Your task to perform on an android device: toggle data saver in the chrome app Image 0: 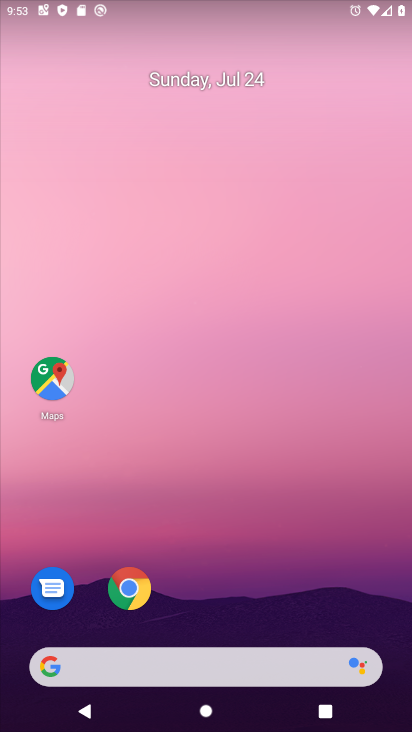
Step 0: drag from (311, 610) to (305, 109)
Your task to perform on an android device: toggle data saver in the chrome app Image 1: 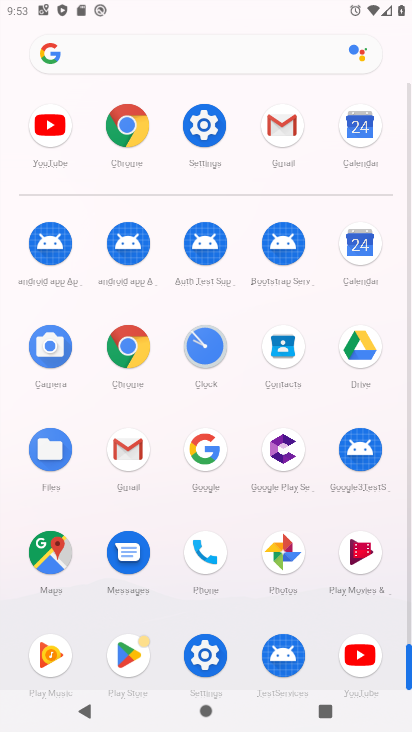
Step 1: drag from (237, 630) to (298, 3)
Your task to perform on an android device: toggle data saver in the chrome app Image 2: 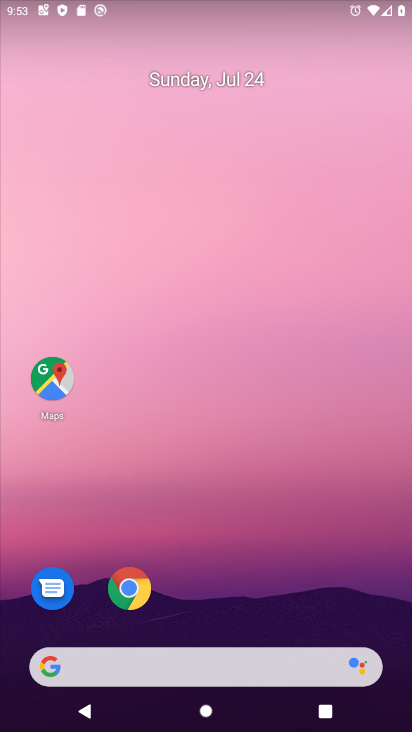
Step 2: click (126, 120)
Your task to perform on an android device: toggle data saver in the chrome app Image 3: 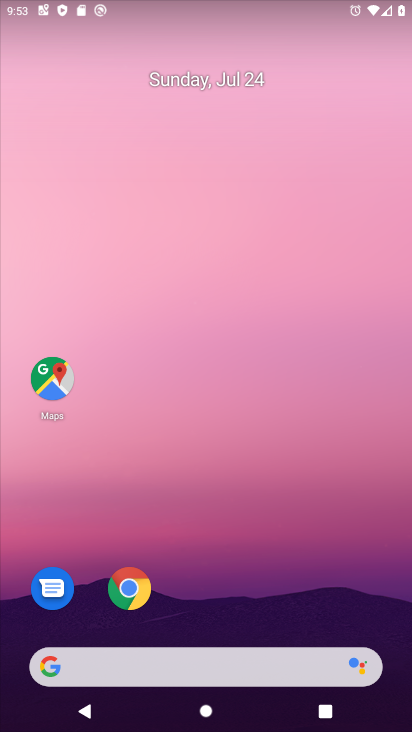
Step 3: click (111, 120)
Your task to perform on an android device: toggle data saver in the chrome app Image 4: 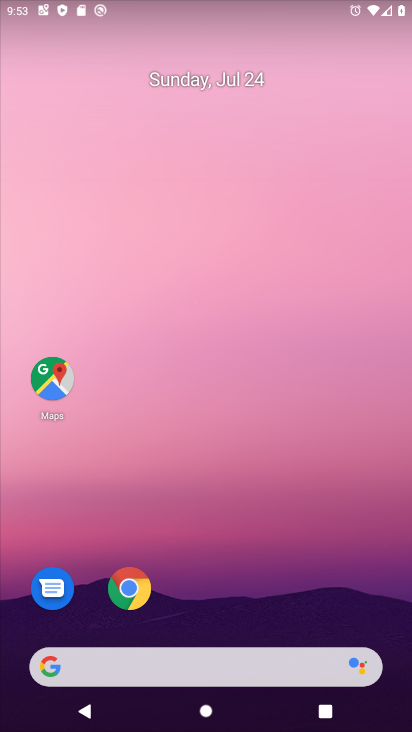
Step 4: drag from (215, 538) to (207, 6)
Your task to perform on an android device: toggle data saver in the chrome app Image 5: 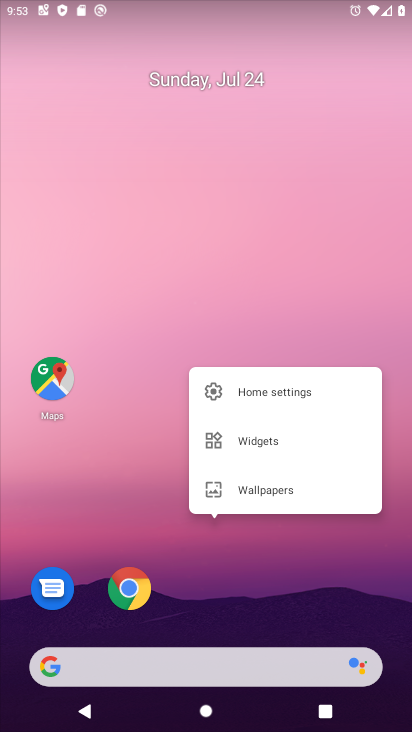
Step 5: drag from (189, 376) to (188, 34)
Your task to perform on an android device: toggle data saver in the chrome app Image 6: 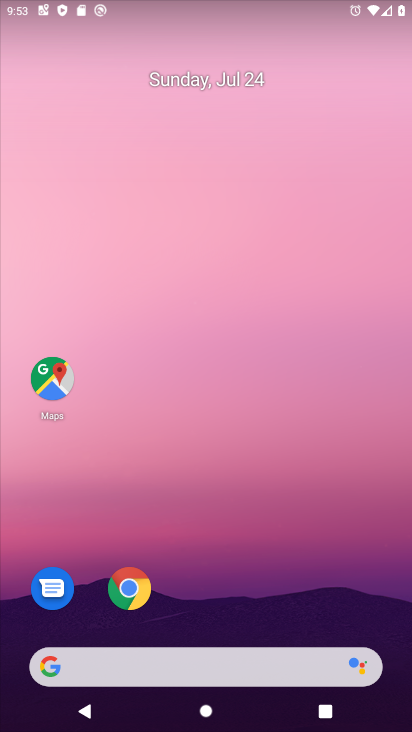
Step 6: drag from (158, 76) to (191, 23)
Your task to perform on an android device: toggle data saver in the chrome app Image 7: 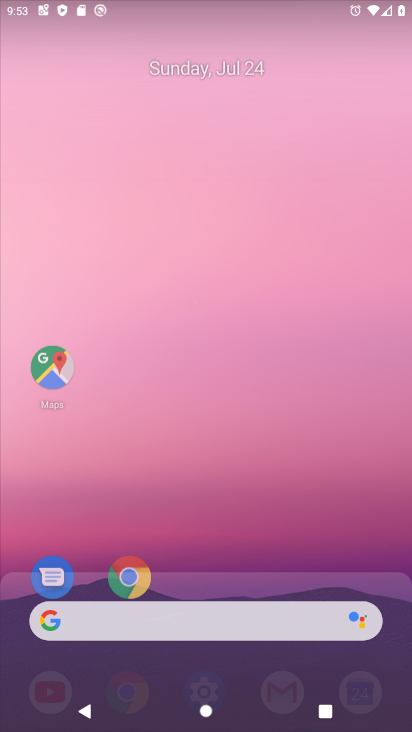
Step 7: drag from (225, 445) to (234, 47)
Your task to perform on an android device: toggle data saver in the chrome app Image 8: 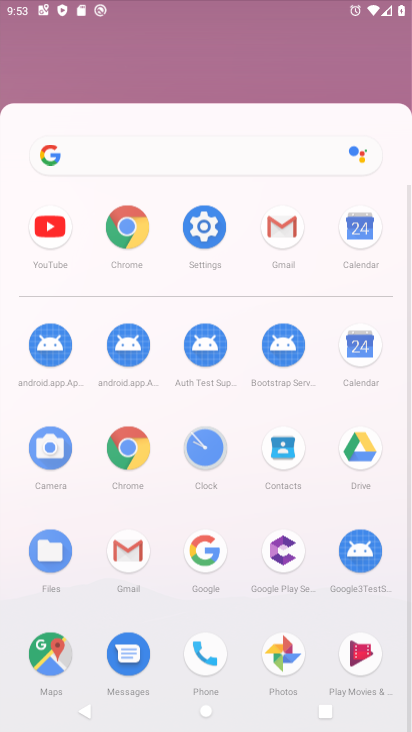
Step 8: drag from (221, 424) to (216, 0)
Your task to perform on an android device: toggle data saver in the chrome app Image 9: 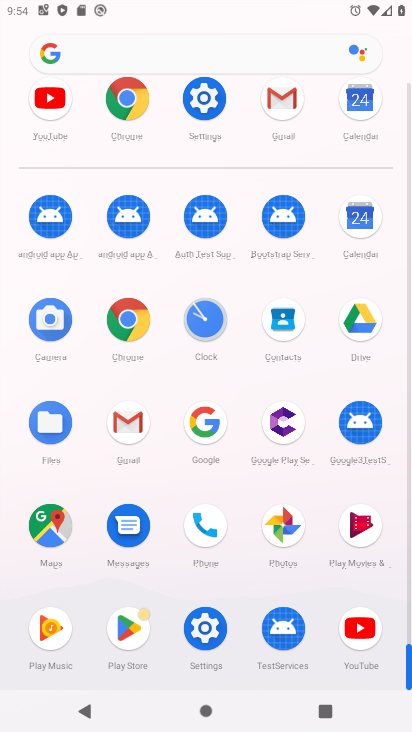
Step 9: click (120, 94)
Your task to perform on an android device: toggle data saver in the chrome app Image 10: 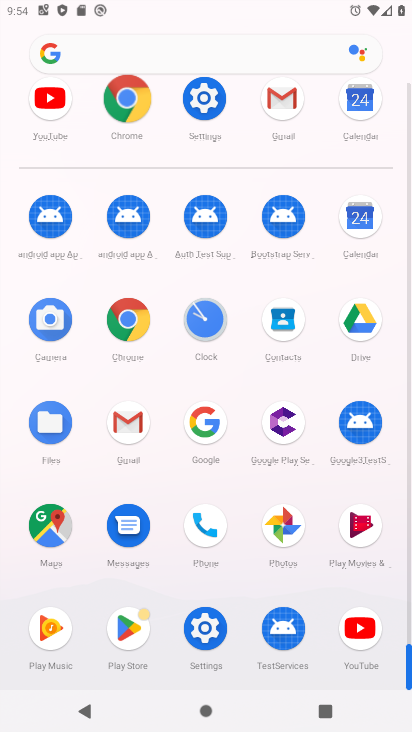
Step 10: click (121, 83)
Your task to perform on an android device: toggle data saver in the chrome app Image 11: 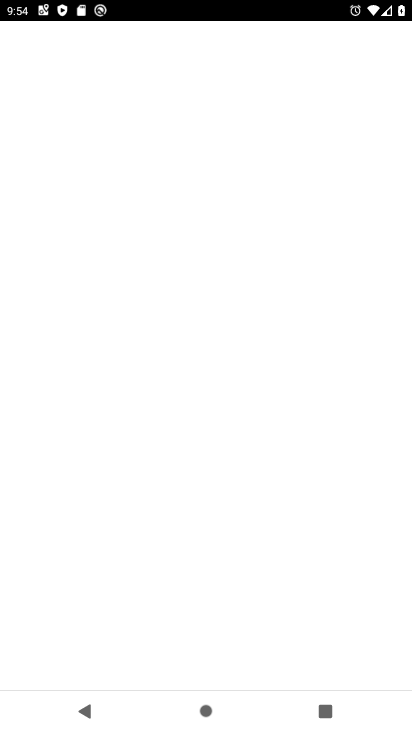
Step 11: click (125, 86)
Your task to perform on an android device: toggle data saver in the chrome app Image 12: 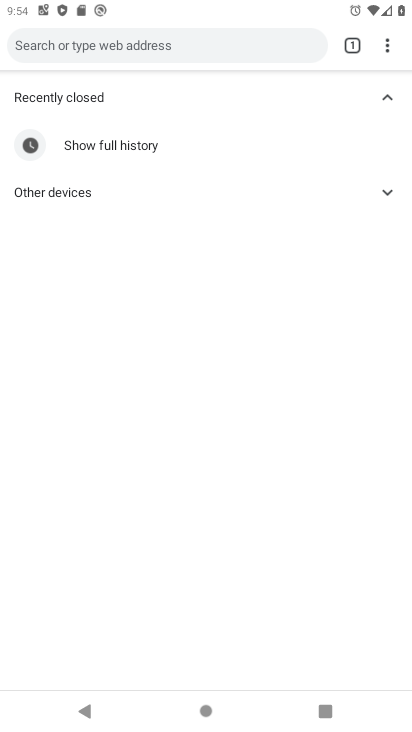
Step 12: drag from (386, 45) to (202, 378)
Your task to perform on an android device: toggle data saver in the chrome app Image 13: 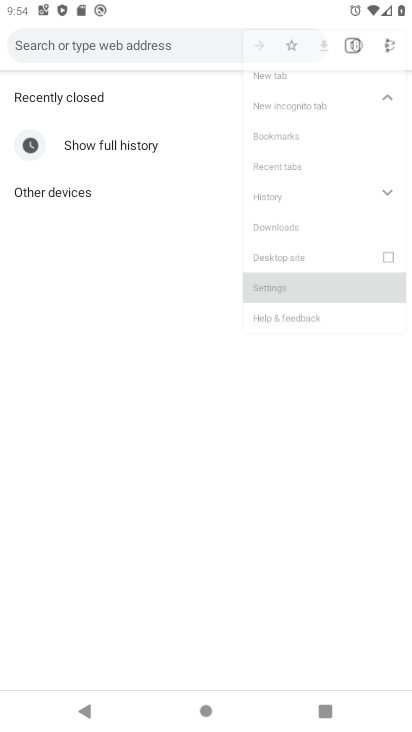
Step 13: click (203, 378)
Your task to perform on an android device: toggle data saver in the chrome app Image 14: 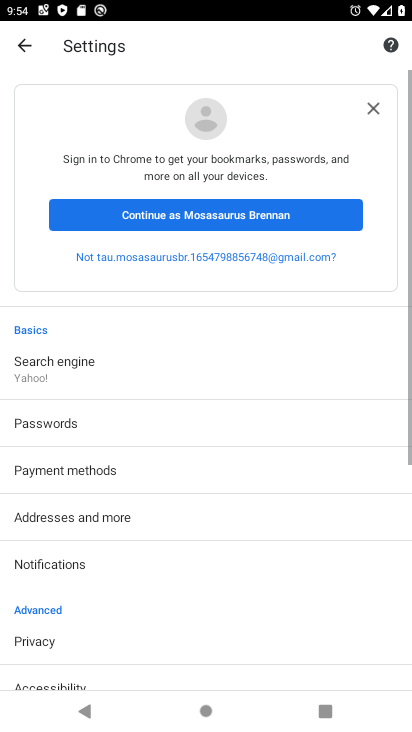
Step 14: drag from (127, 552) to (159, 136)
Your task to perform on an android device: toggle data saver in the chrome app Image 15: 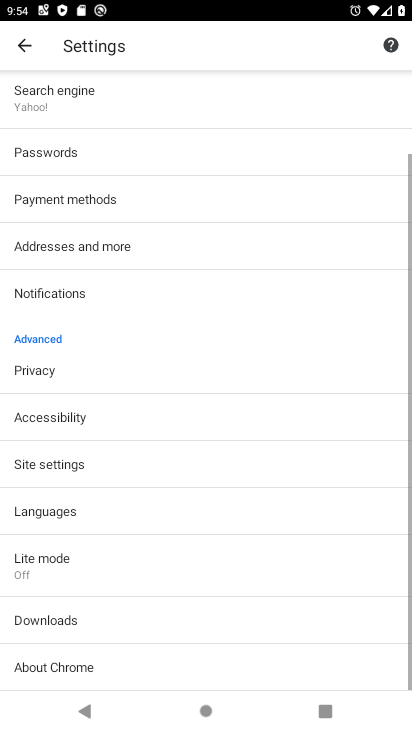
Step 15: drag from (152, 488) to (180, 88)
Your task to perform on an android device: toggle data saver in the chrome app Image 16: 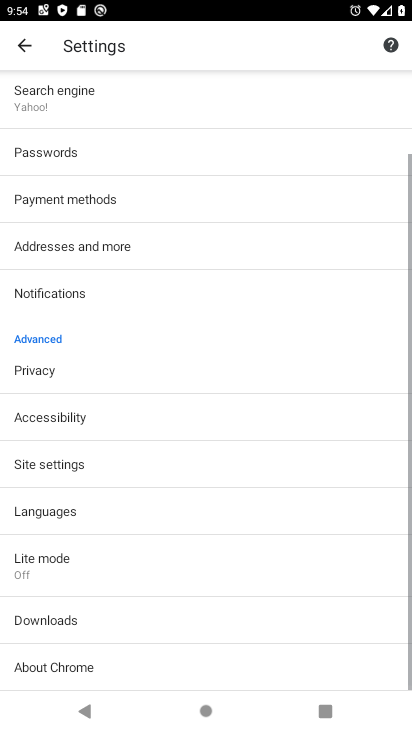
Step 16: drag from (124, 390) to (144, 98)
Your task to perform on an android device: toggle data saver in the chrome app Image 17: 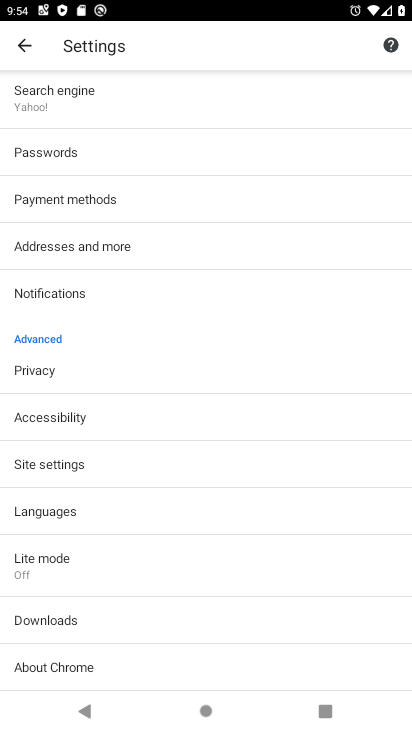
Step 17: click (55, 562)
Your task to perform on an android device: toggle data saver in the chrome app Image 18: 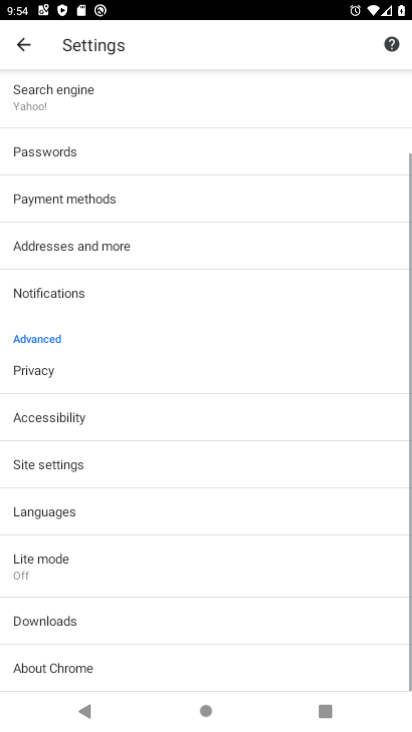
Step 18: click (50, 558)
Your task to perform on an android device: toggle data saver in the chrome app Image 19: 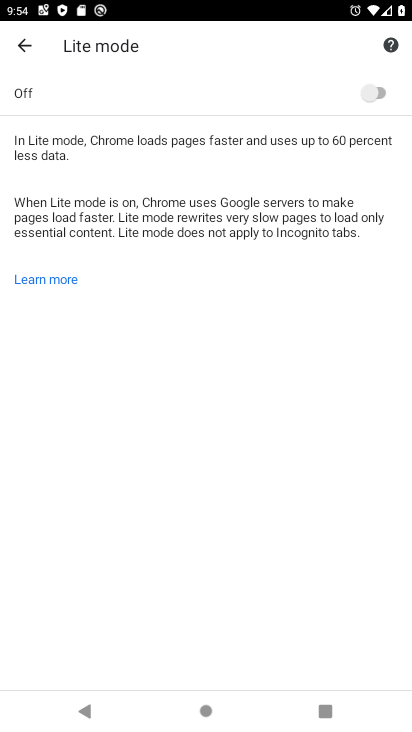
Step 19: click (360, 83)
Your task to perform on an android device: toggle data saver in the chrome app Image 20: 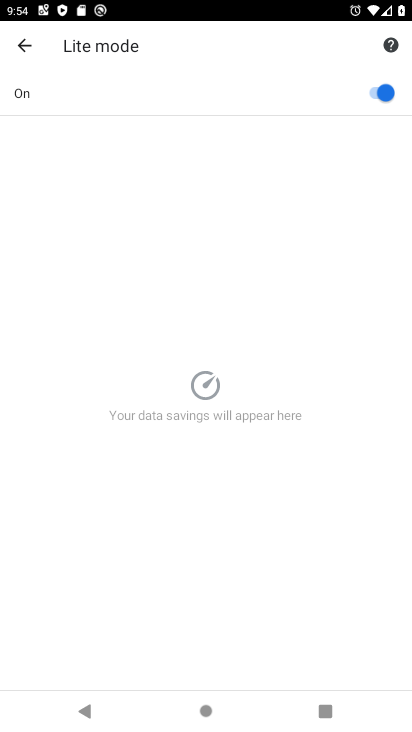
Step 20: task complete